Your task to perform on an android device: Open notification settings Image 0: 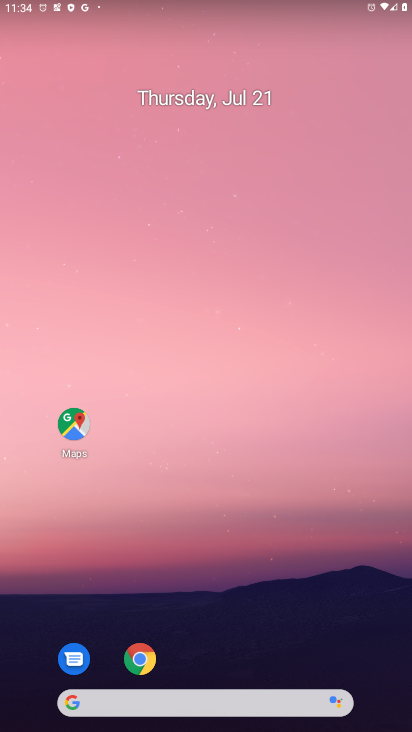
Step 0: drag from (200, 695) to (253, 107)
Your task to perform on an android device: Open notification settings Image 1: 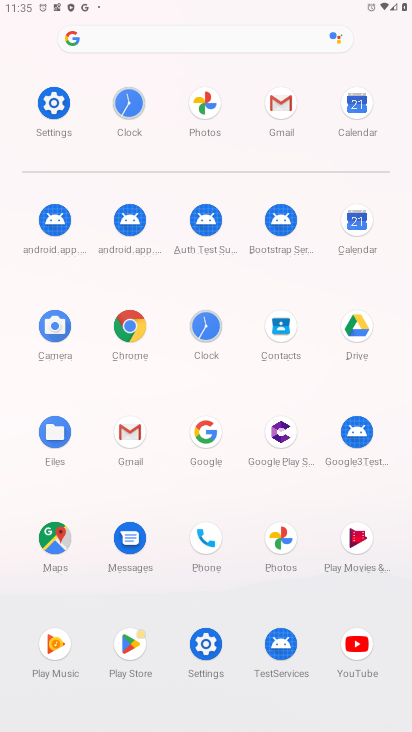
Step 1: click (55, 103)
Your task to perform on an android device: Open notification settings Image 2: 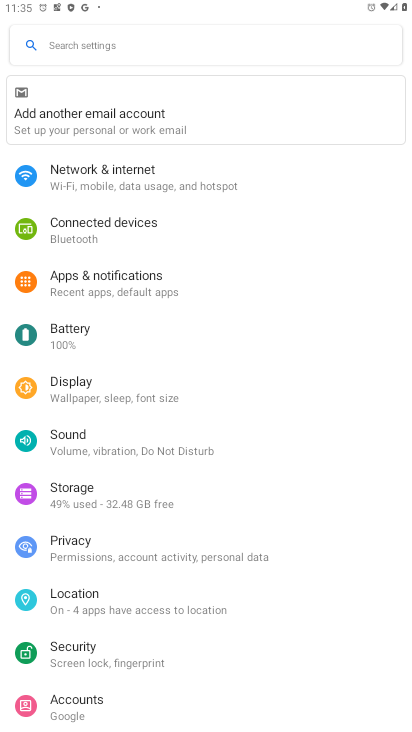
Step 2: click (94, 283)
Your task to perform on an android device: Open notification settings Image 3: 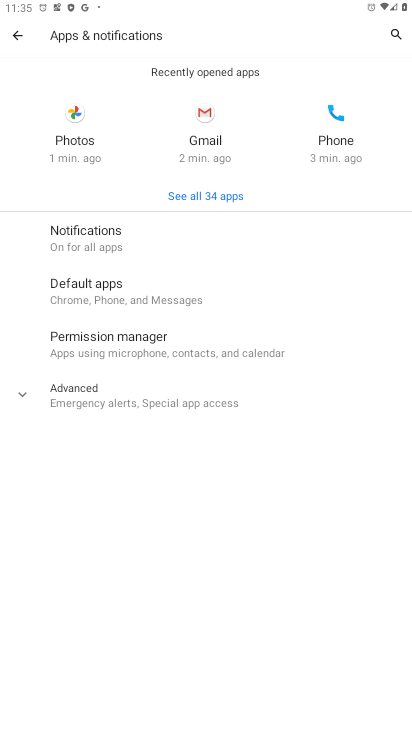
Step 3: click (98, 243)
Your task to perform on an android device: Open notification settings Image 4: 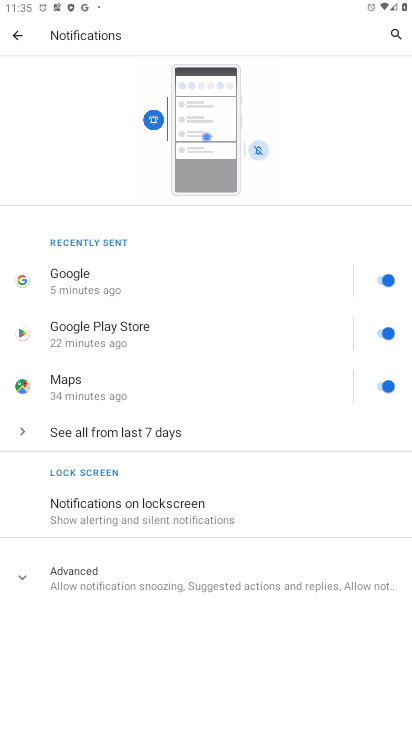
Step 4: task complete